Your task to perform on an android device: show emergency info Image 0: 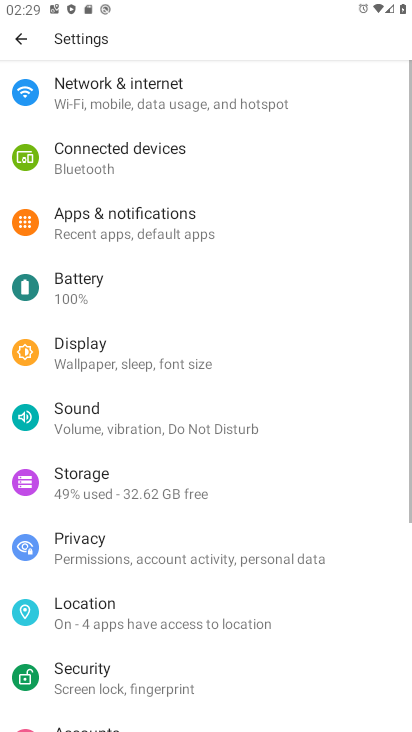
Step 0: drag from (209, 637) to (219, 80)
Your task to perform on an android device: show emergency info Image 1: 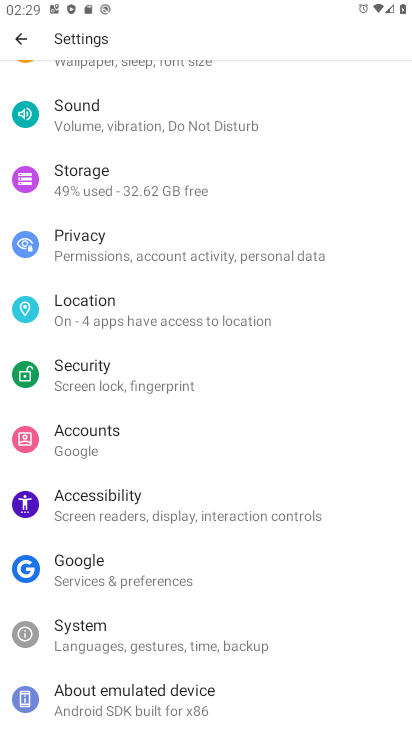
Step 1: click (136, 707)
Your task to perform on an android device: show emergency info Image 2: 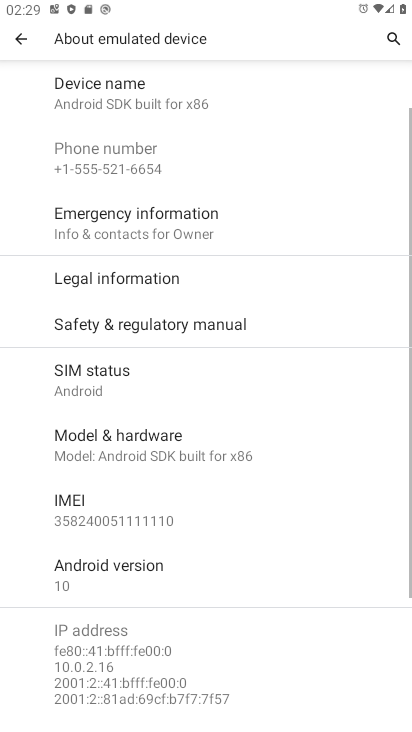
Step 2: click (118, 227)
Your task to perform on an android device: show emergency info Image 3: 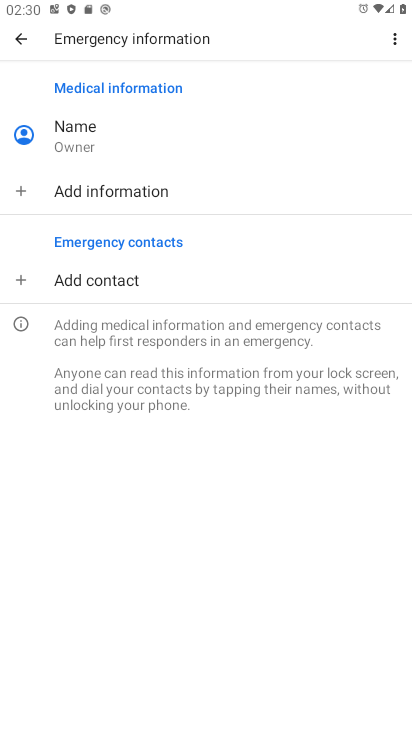
Step 3: task complete